Your task to perform on an android device: change your default location settings in chrome Image 0: 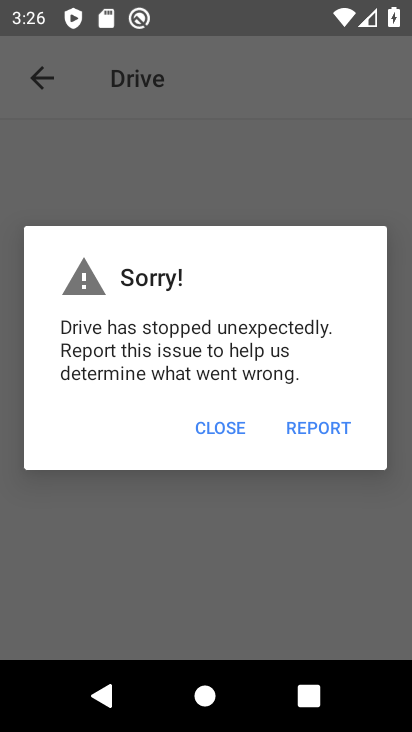
Step 0: press back button
Your task to perform on an android device: change your default location settings in chrome Image 1: 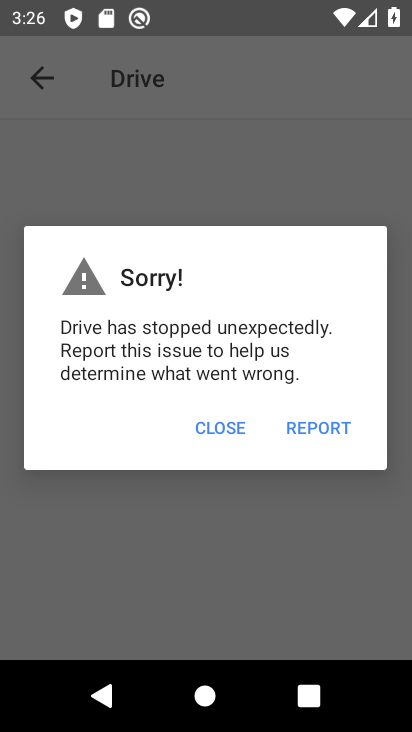
Step 1: press back button
Your task to perform on an android device: change your default location settings in chrome Image 2: 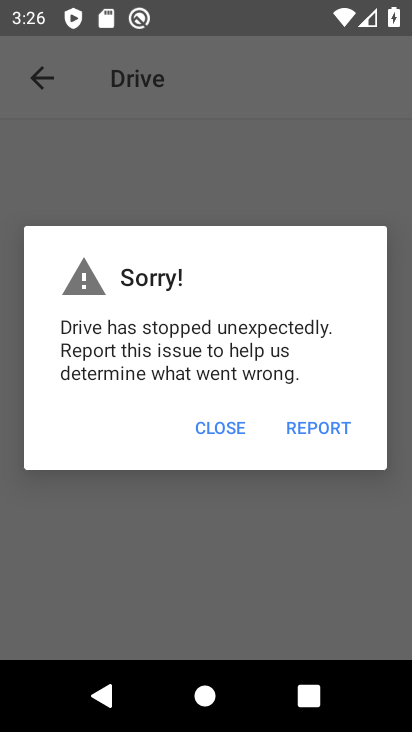
Step 2: press home button
Your task to perform on an android device: change your default location settings in chrome Image 3: 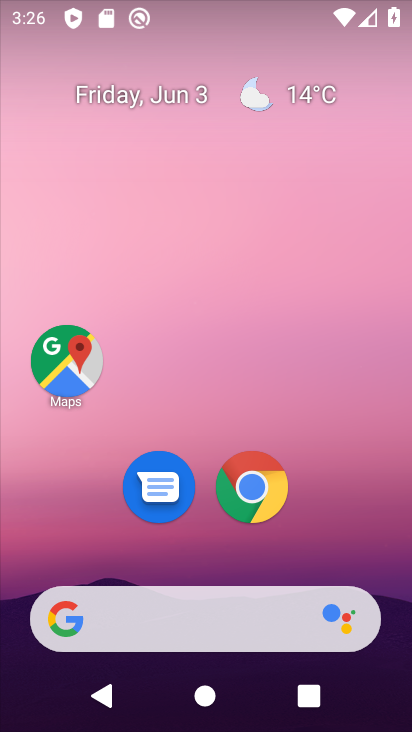
Step 3: click (246, 501)
Your task to perform on an android device: change your default location settings in chrome Image 4: 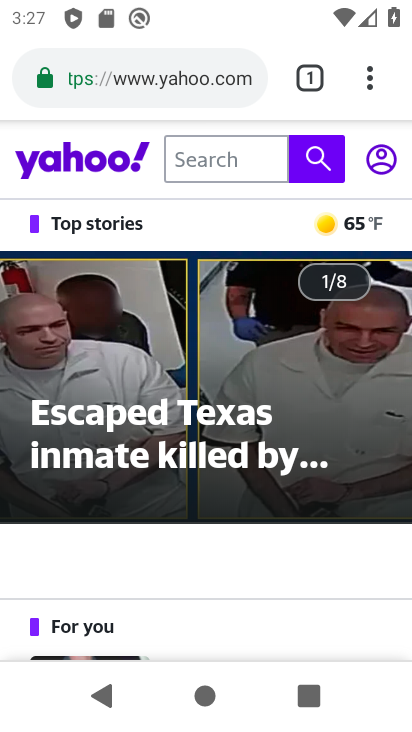
Step 4: drag from (364, 74) to (193, 588)
Your task to perform on an android device: change your default location settings in chrome Image 5: 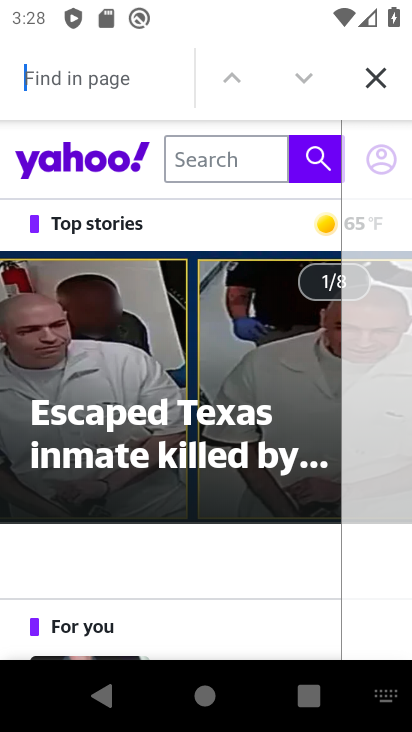
Step 5: click (373, 70)
Your task to perform on an android device: change your default location settings in chrome Image 6: 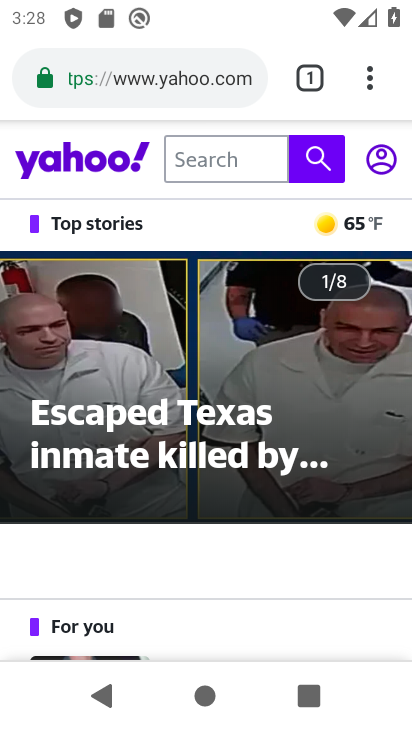
Step 6: drag from (370, 78) to (103, 537)
Your task to perform on an android device: change your default location settings in chrome Image 7: 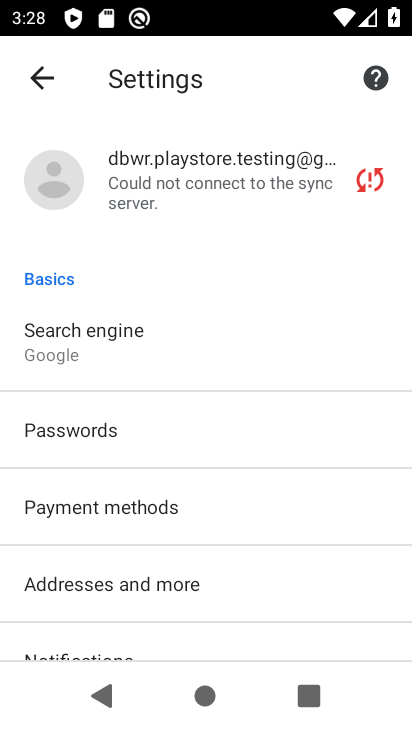
Step 7: drag from (131, 641) to (252, 169)
Your task to perform on an android device: change your default location settings in chrome Image 8: 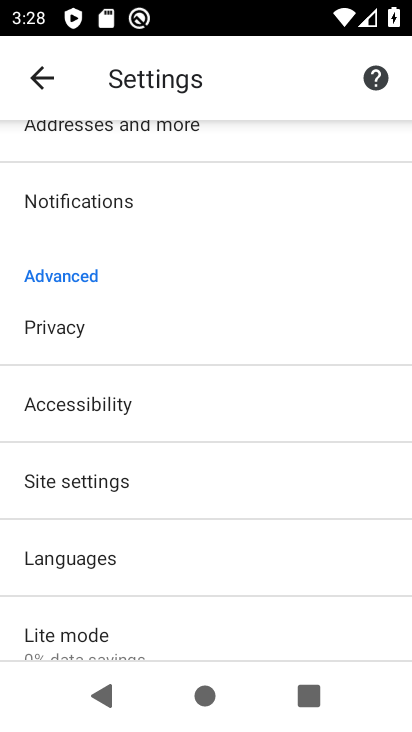
Step 8: click (103, 475)
Your task to perform on an android device: change your default location settings in chrome Image 9: 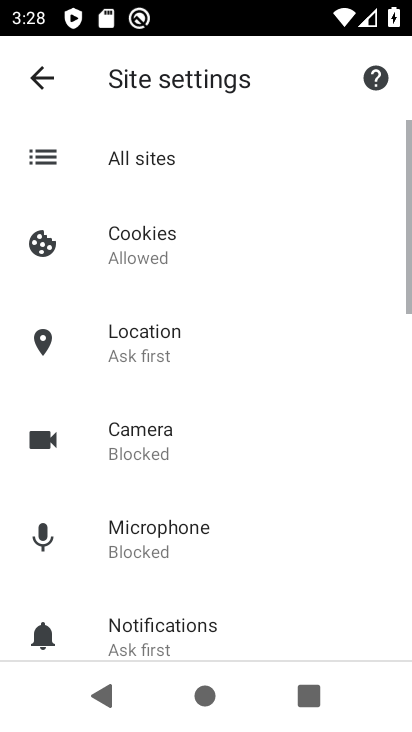
Step 9: drag from (156, 657) to (243, 199)
Your task to perform on an android device: change your default location settings in chrome Image 10: 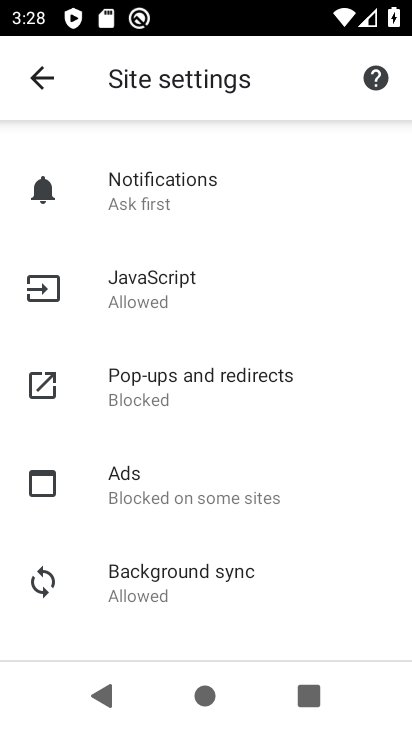
Step 10: drag from (170, 171) to (180, 729)
Your task to perform on an android device: change your default location settings in chrome Image 11: 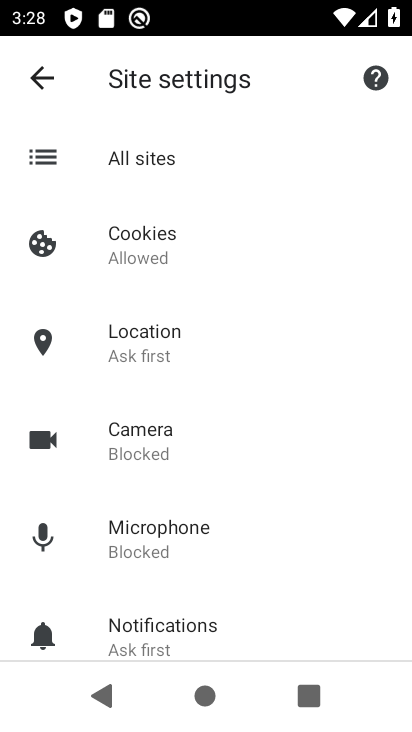
Step 11: click (149, 346)
Your task to perform on an android device: change your default location settings in chrome Image 12: 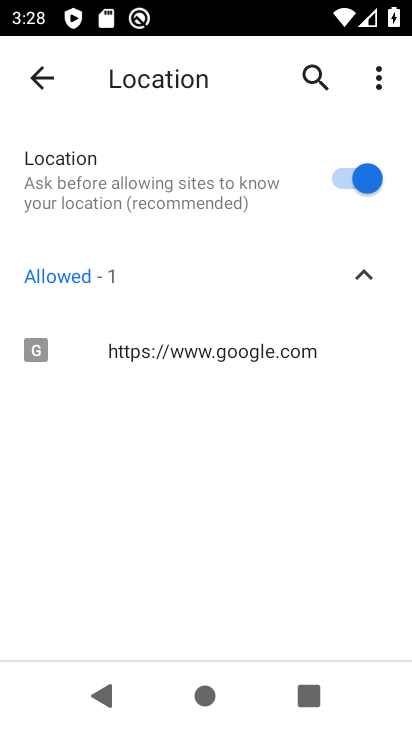
Step 12: click (355, 176)
Your task to perform on an android device: change your default location settings in chrome Image 13: 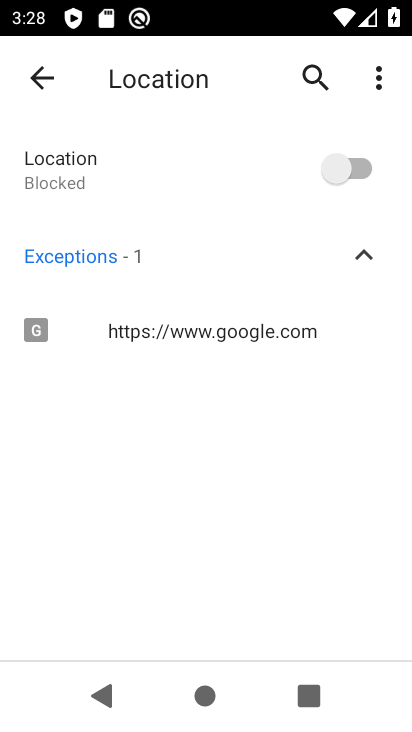
Step 13: task complete